Your task to perform on an android device: turn vacation reply on in the gmail app Image 0: 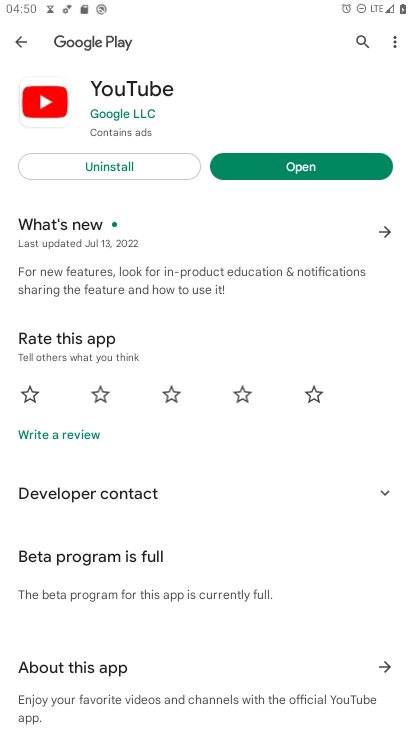
Step 0: press home button
Your task to perform on an android device: turn vacation reply on in the gmail app Image 1: 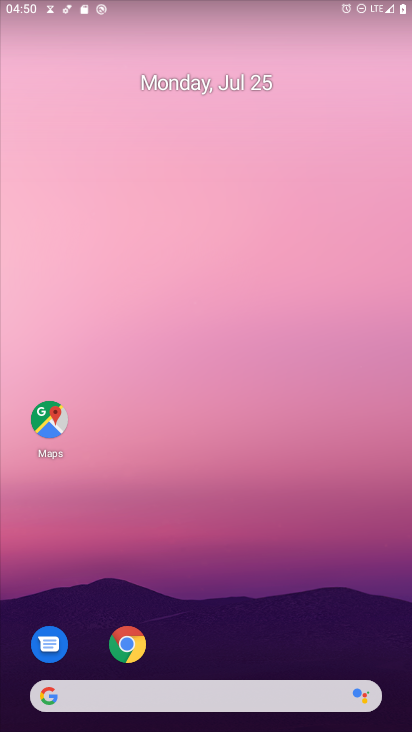
Step 1: drag from (321, 641) to (286, 57)
Your task to perform on an android device: turn vacation reply on in the gmail app Image 2: 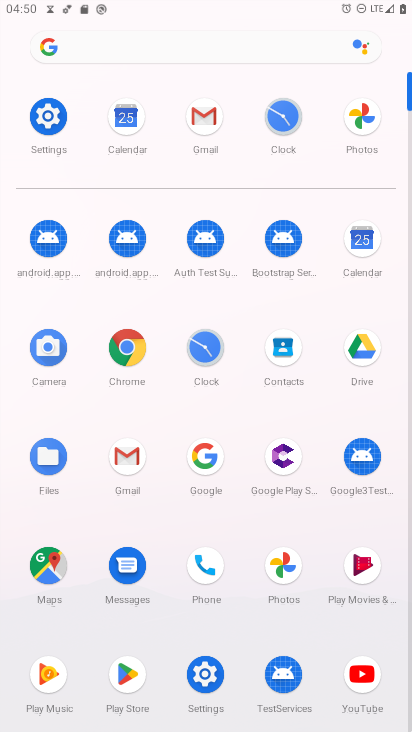
Step 2: click (204, 112)
Your task to perform on an android device: turn vacation reply on in the gmail app Image 3: 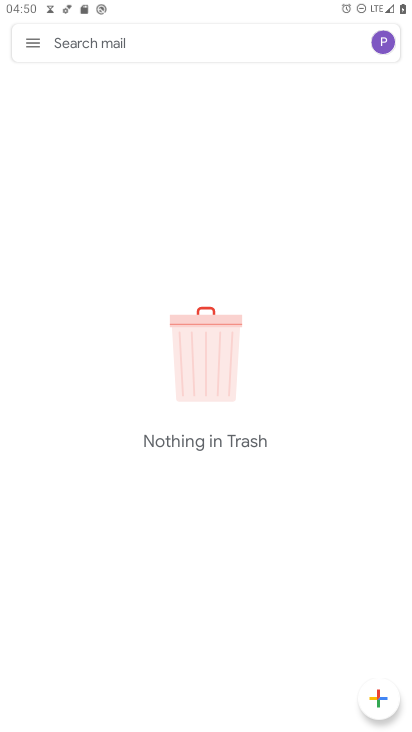
Step 3: click (26, 40)
Your task to perform on an android device: turn vacation reply on in the gmail app Image 4: 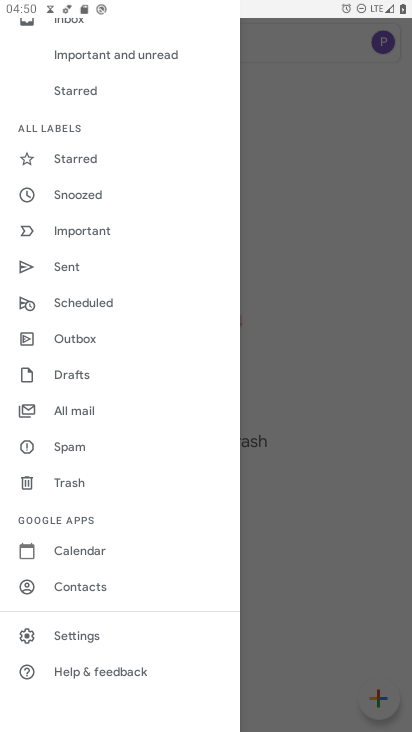
Step 4: click (59, 633)
Your task to perform on an android device: turn vacation reply on in the gmail app Image 5: 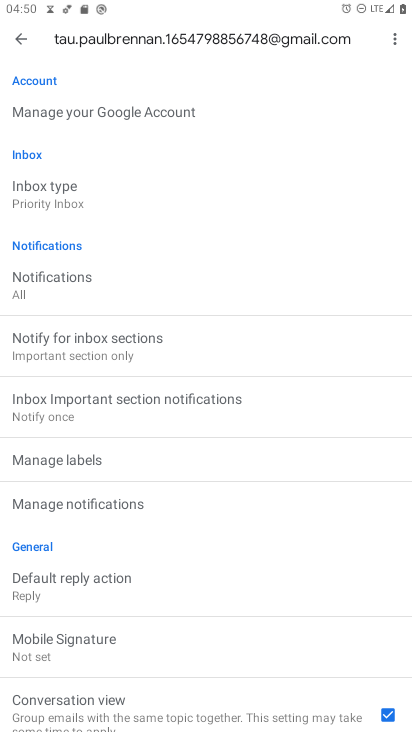
Step 5: drag from (174, 660) to (206, 184)
Your task to perform on an android device: turn vacation reply on in the gmail app Image 6: 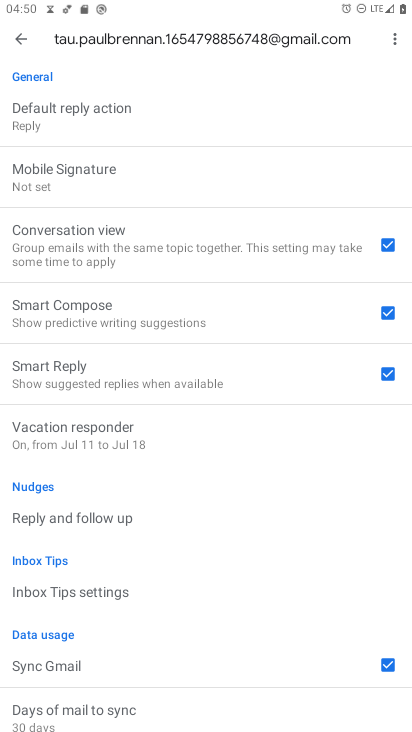
Step 6: drag from (177, 440) to (193, 143)
Your task to perform on an android device: turn vacation reply on in the gmail app Image 7: 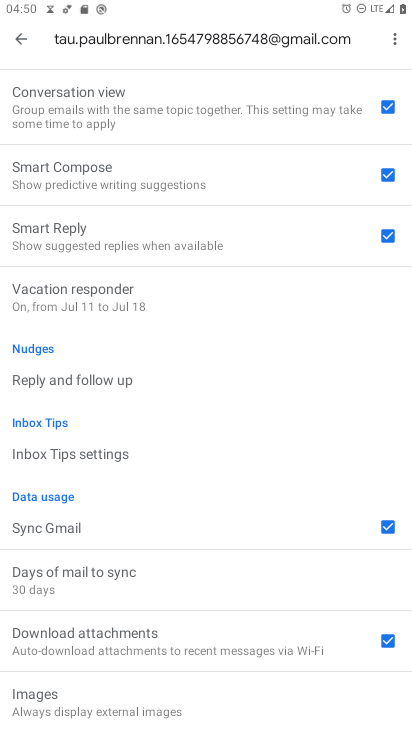
Step 7: drag from (171, 537) to (185, 213)
Your task to perform on an android device: turn vacation reply on in the gmail app Image 8: 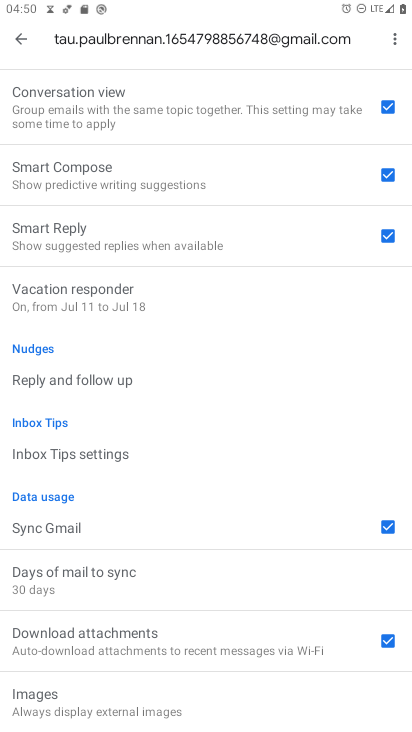
Step 8: drag from (135, 338) to (265, 108)
Your task to perform on an android device: turn vacation reply on in the gmail app Image 9: 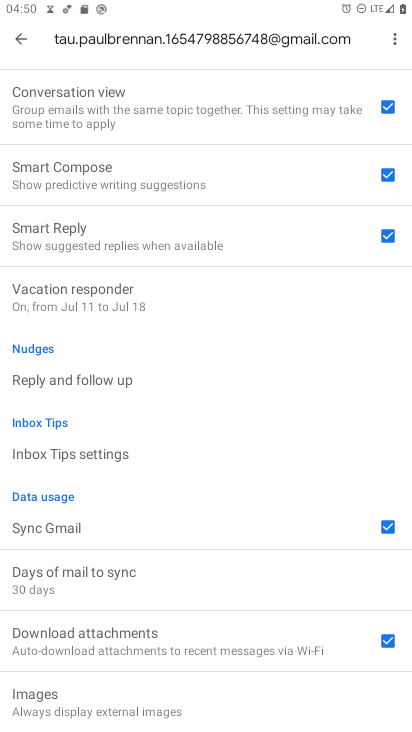
Step 9: drag from (175, 134) to (192, 263)
Your task to perform on an android device: turn vacation reply on in the gmail app Image 10: 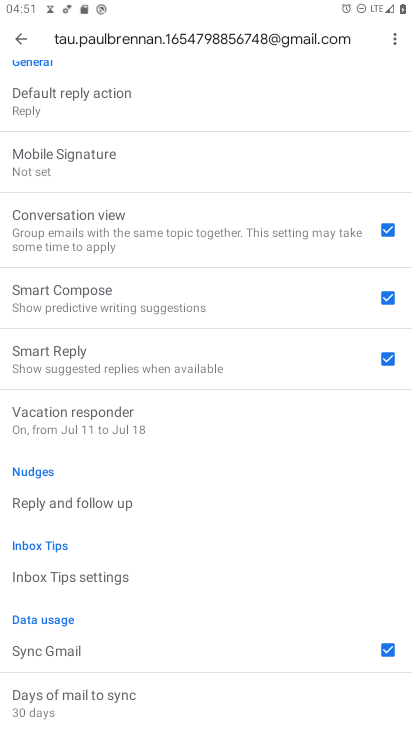
Step 10: click (198, 420)
Your task to perform on an android device: turn vacation reply on in the gmail app Image 11: 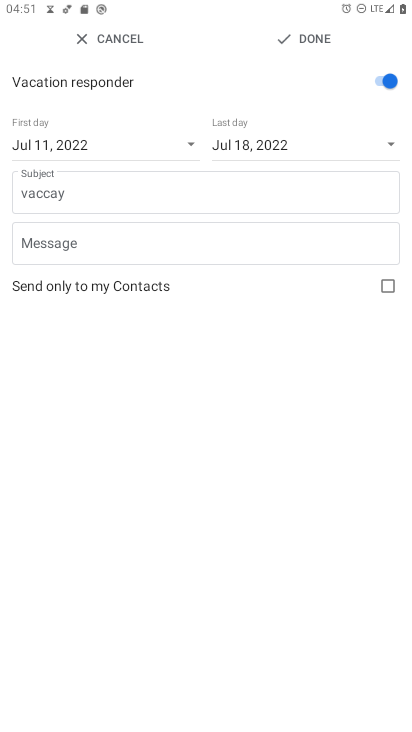
Step 11: task complete